Your task to perform on an android device: Go to privacy settings Image 0: 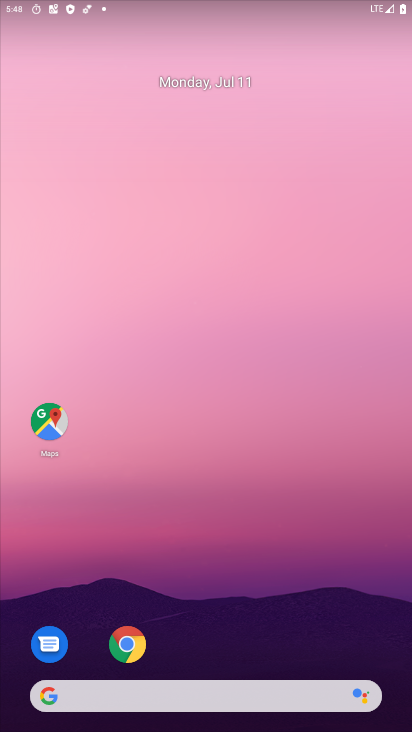
Step 0: drag from (303, 651) to (271, 43)
Your task to perform on an android device: Go to privacy settings Image 1: 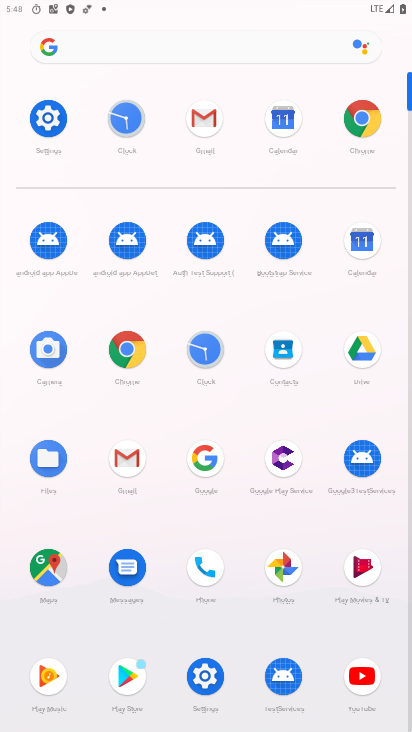
Step 1: click (49, 110)
Your task to perform on an android device: Go to privacy settings Image 2: 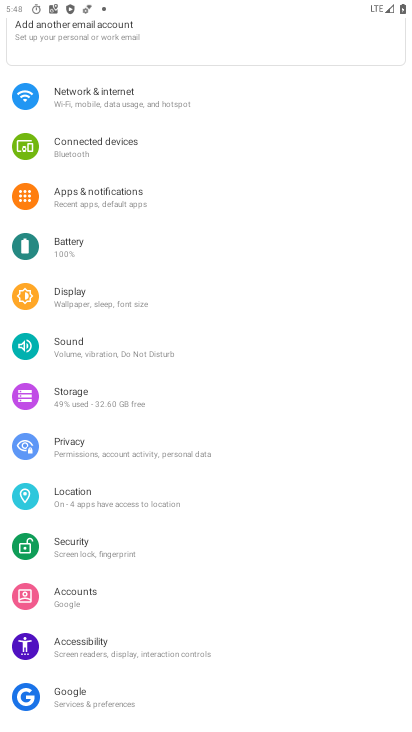
Step 2: click (86, 432)
Your task to perform on an android device: Go to privacy settings Image 3: 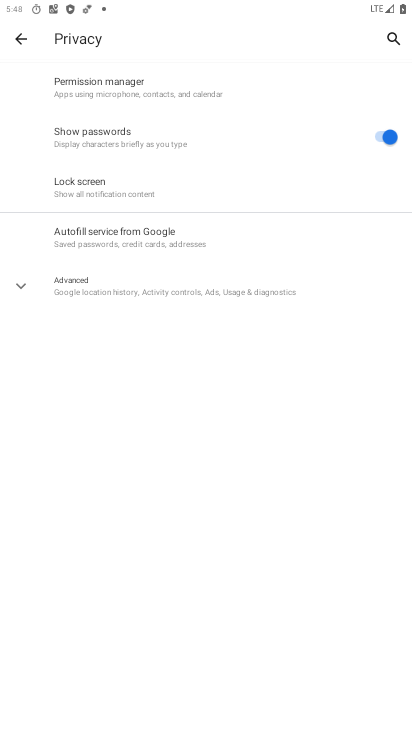
Step 3: task complete